Your task to perform on an android device: Go to Google maps Image 0: 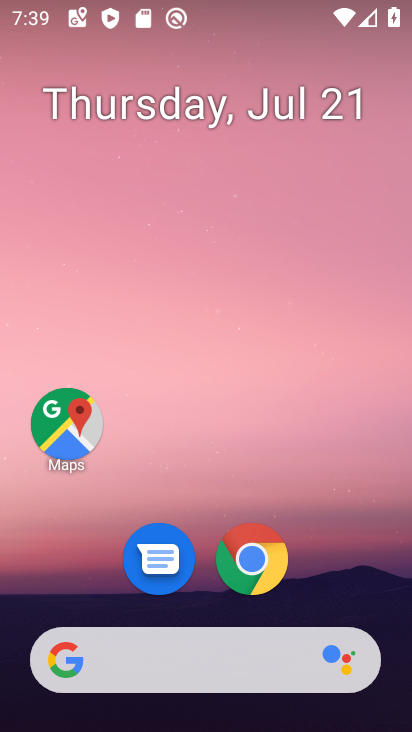
Step 0: drag from (188, 690) to (234, 240)
Your task to perform on an android device: Go to Google maps Image 1: 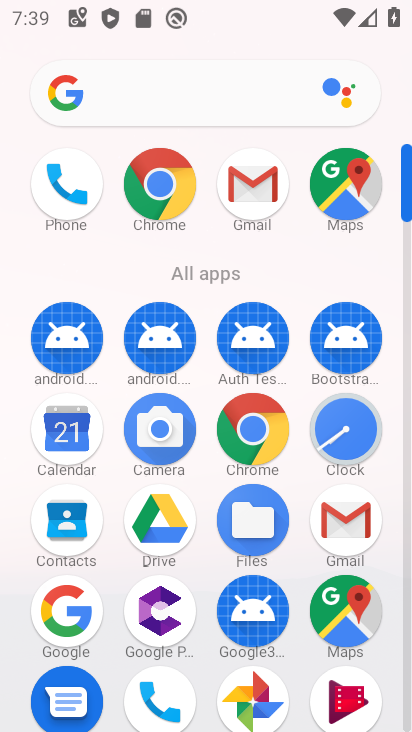
Step 1: drag from (216, 507) to (268, 181)
Your task to perform on an android device: Go to Google maps Image 2: 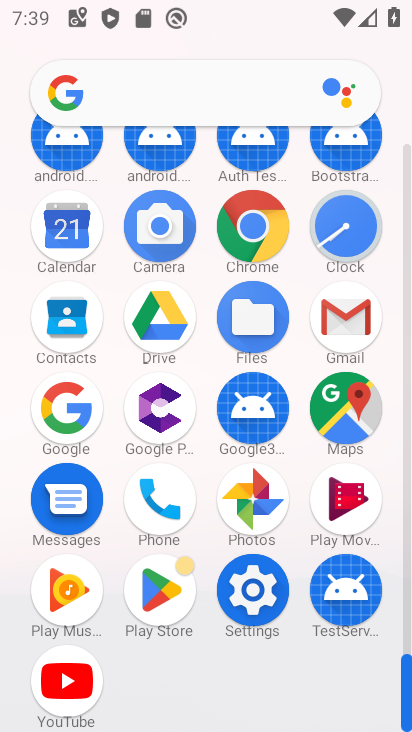
Step 2: click (348, 424)
Your task to perform on an android device: Go to Google maps Image 3: 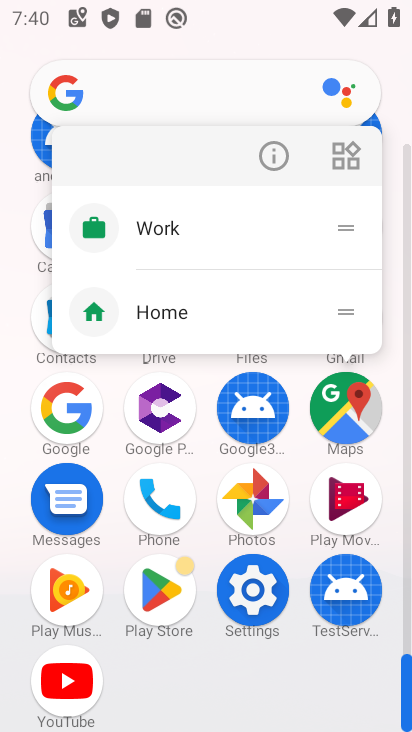
Step 3: click (362, 424)
Your task to perform on an android device: Go to Google maps Image 4: 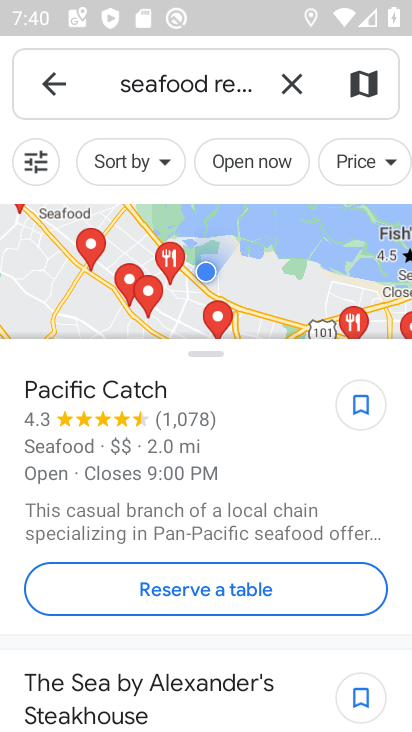
Step 4: task complete